Your task to perform on an android device: Turn on the flashlight Image 0: 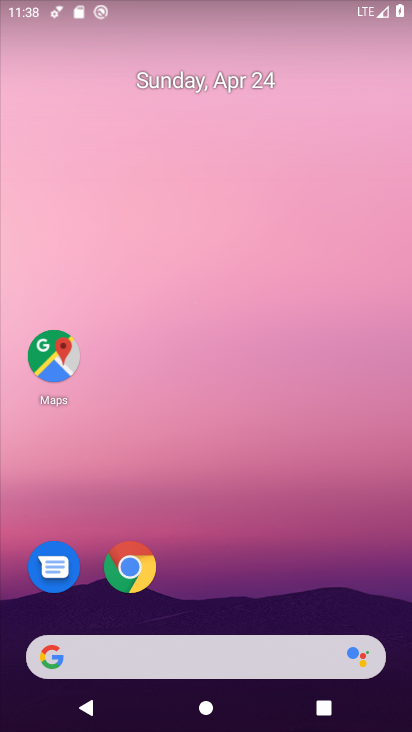
Step 0: drag from (282, 68) to (300, 463)
Your task to perform on an android device: Turn on the flashlight Image 1: 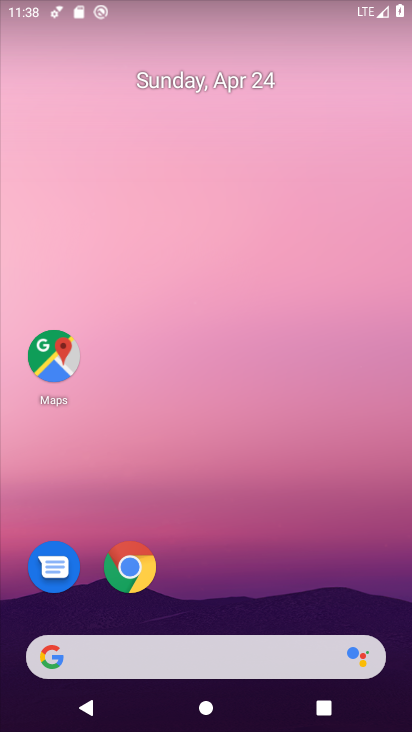
Step 1: task complete